Your task to perform on an android device: Open ESPN.com Image 0: 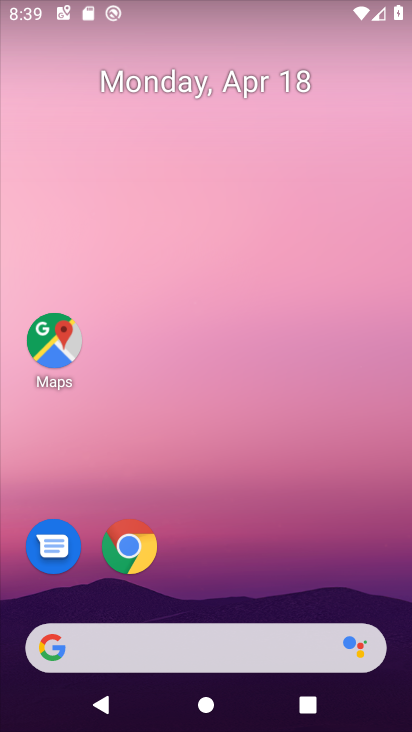
Step 0: drag from (276, 106) to (267, 53)
Your task to perform on an android device: Open ESPN.com Image 1: 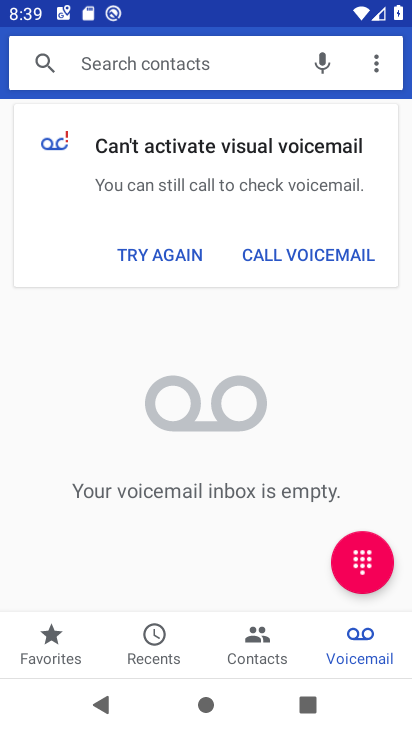
Step 1: press home button
Your task to perform on an android device: Open ESPN.com Image 2: 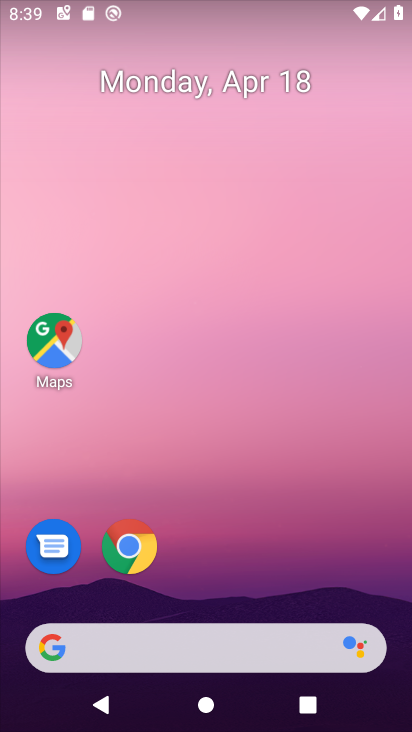
Step 2: click (143, 537)
Your task to perform on an android device: Open ESPN.com Image 3: 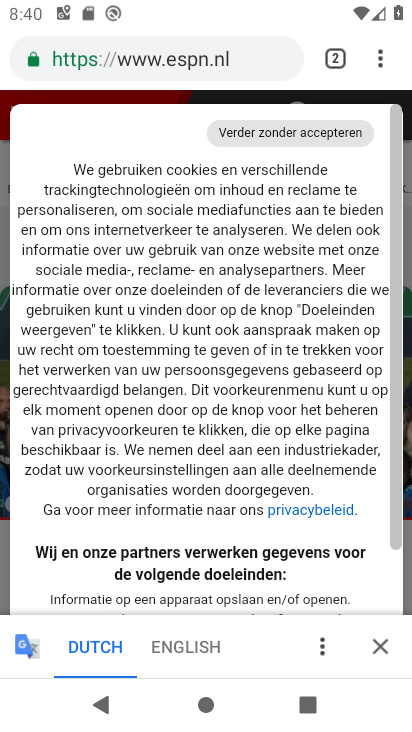
Step 3: click (336, 70)
Your task to perform on an android device: Open ESPN.com Image 4: 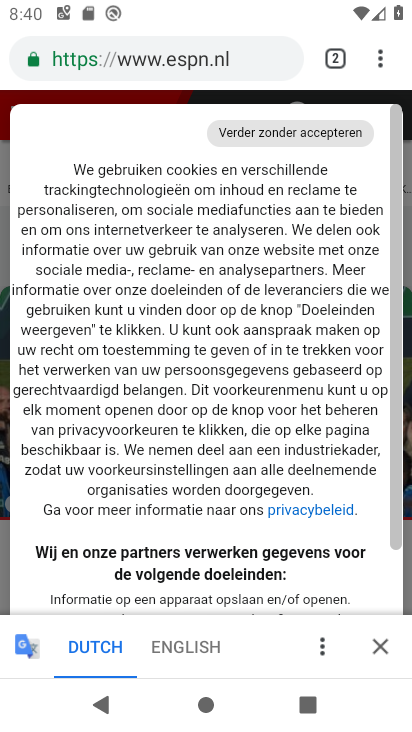
Step 4: drag from (332, 519) to (258, 60)
Your task to perform on an android device: Open ESPN.com Image 5: 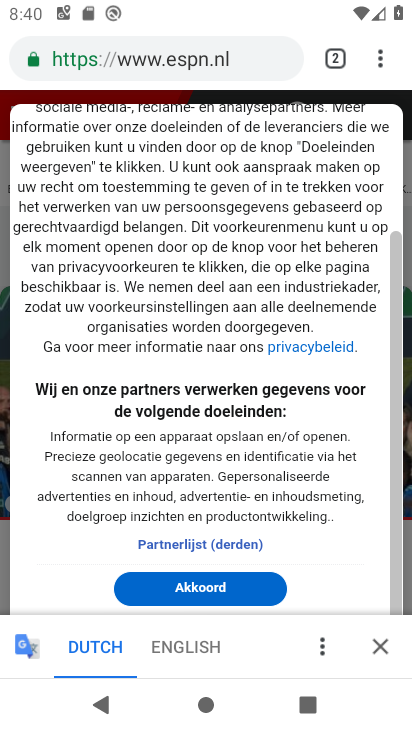
Step 5: drag from (287, 468) to (267, 33)
Your task to perform on an android device: Open ESPN.com Image 6: 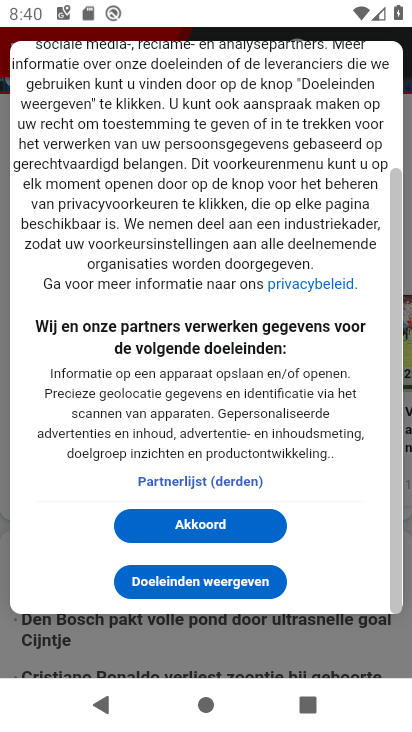
Step 6: click (241, 521)
Your task to perform on an android device: Open ESPN.com Image 7: 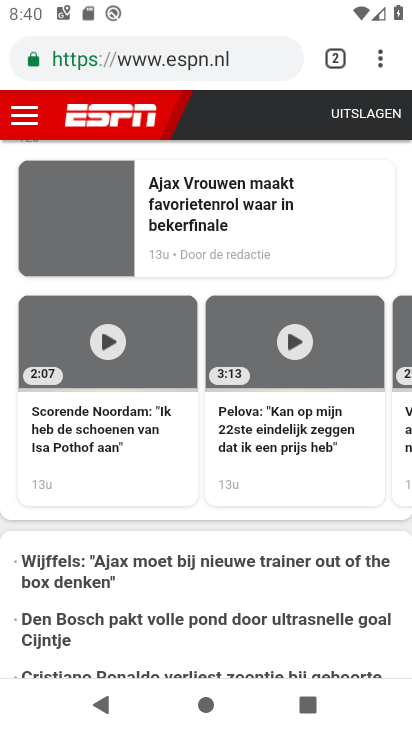
Step 7: task complete